Your task to perform on an android device: toggle sleep mode Image 0: 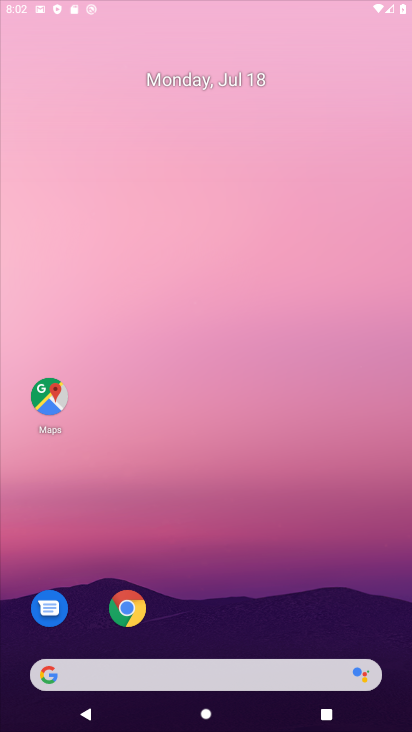
Step 0: click (244, 141)
Your task to perform on an android device: toggle sleep mode Image 1: 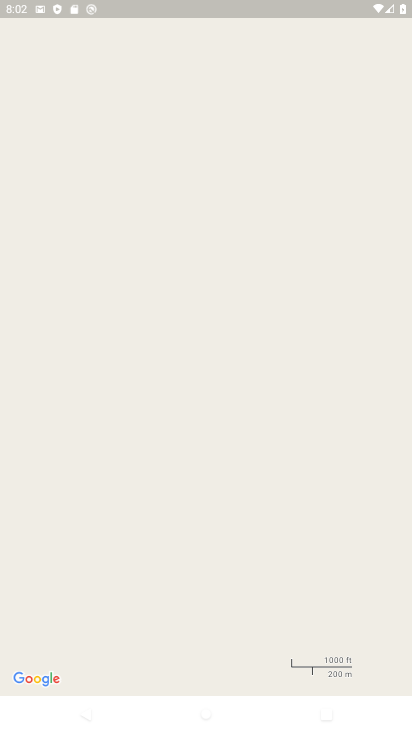
Step 1: press home button
Your task to perform on an android device: toggle sleep mode Image 2: 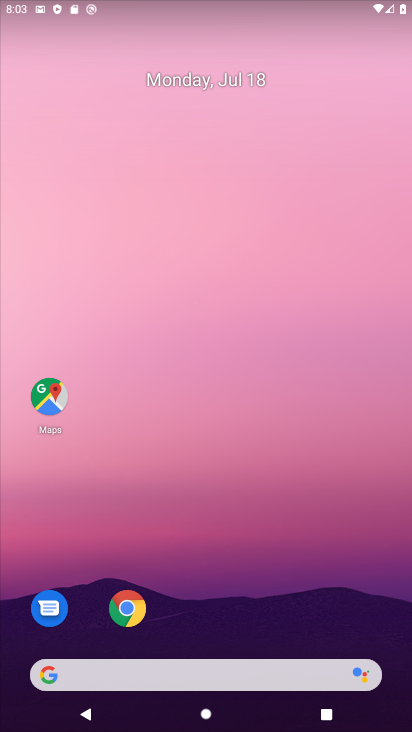
Step 2: drag from (237, 731) to (216, 37)
Your task to perform on an android device: toggle sleep mode Image 3: 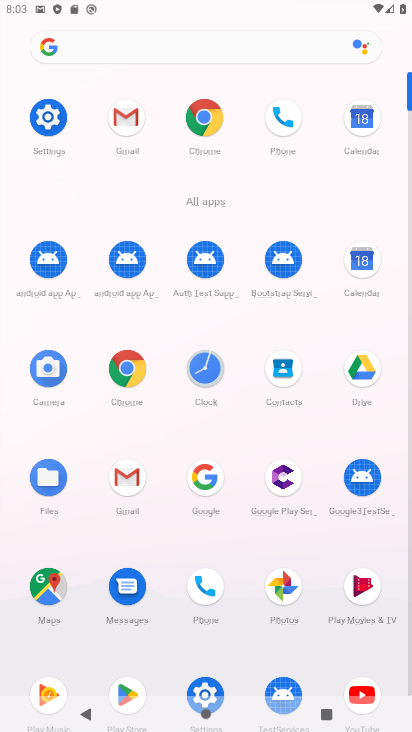
Step 3: click (50, 123)
Your task to perform on an android device: toggle sleep mode Image 4: 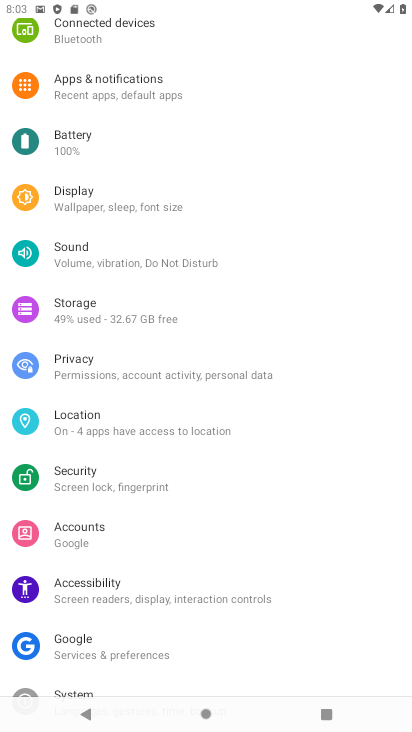
Step 4: click (95, 198)
Your task to perform on an android device: toggle sleep mode Image 5: 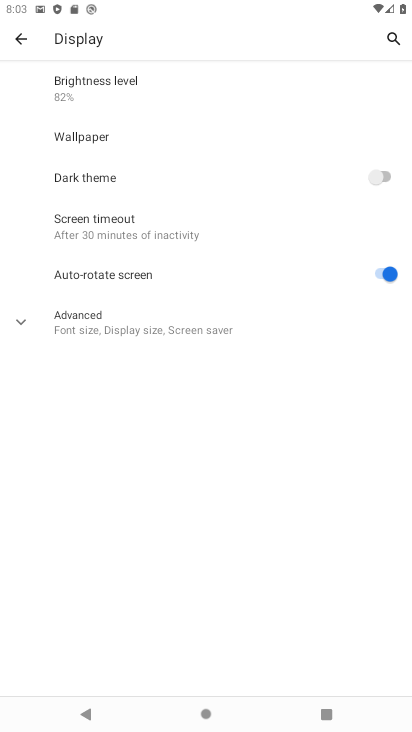
Step 5: task complete